Your task to perform on an android device: Open Yahoo.com Image 0: 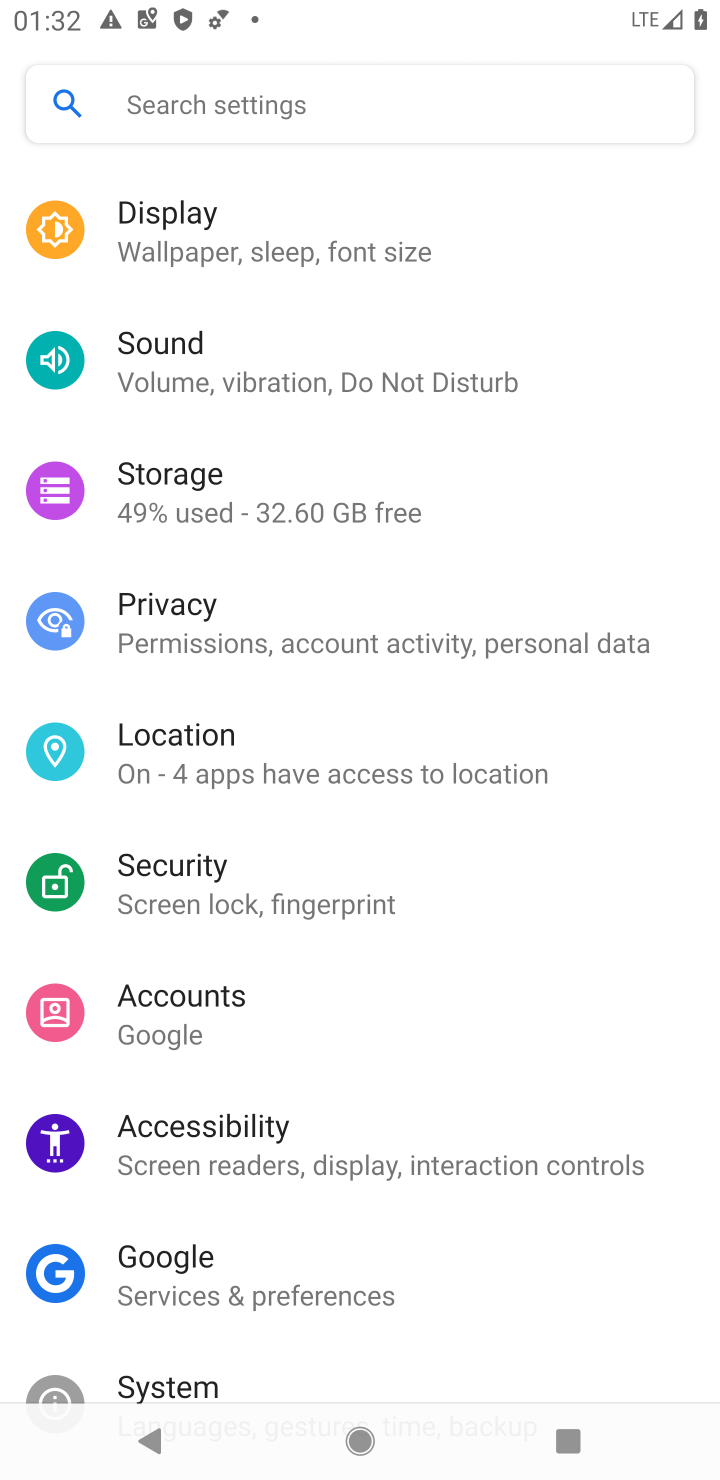
Step 0: click (167, 1439)
Your task to perform on an android device: Open Yahoo.com Image 1: 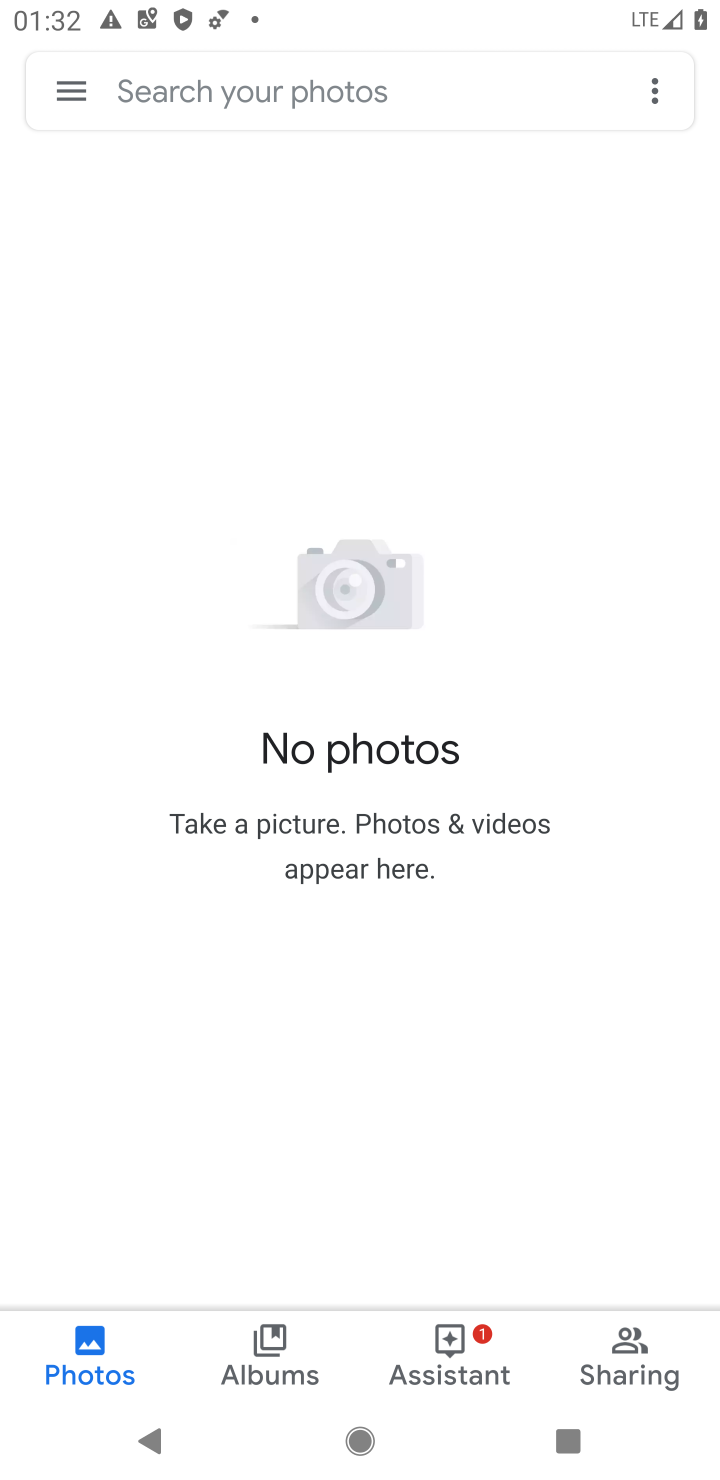
Step 1: click (387, 1445)
Your task to perform on an android device: Open Yahoo.com Image 2: 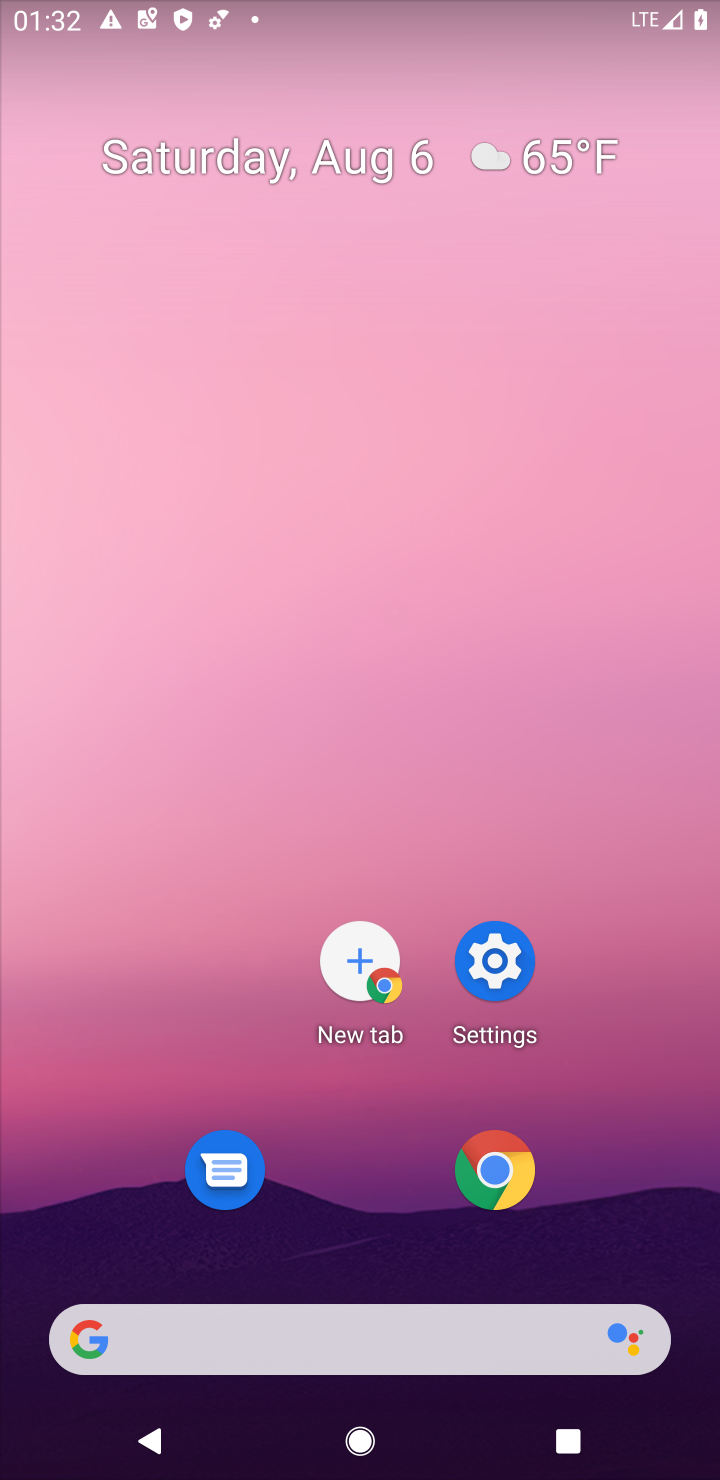
Step 2: click (493, 960)
Your task to perform on an android device: Open Yahoo.com Image 3: 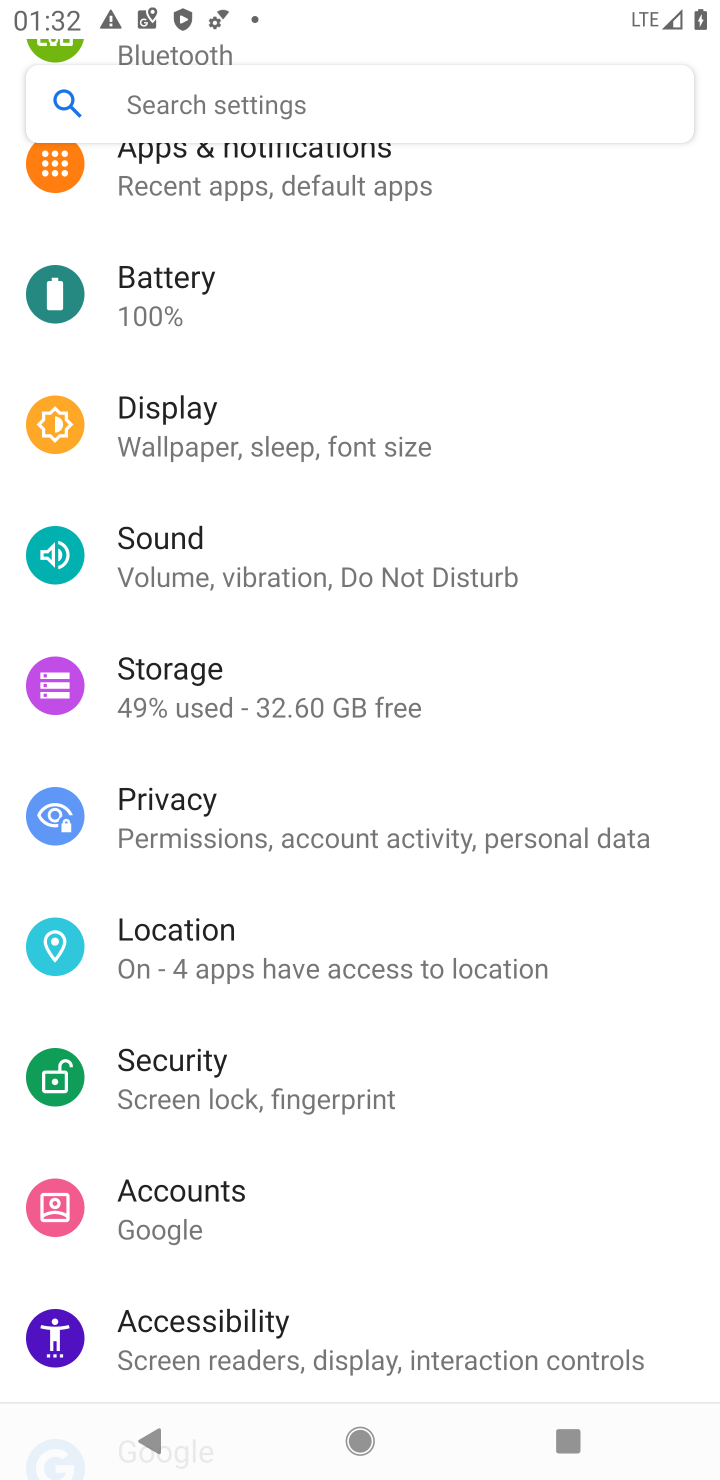
Step 3: click (505, 112)
Your task to perform on an android device: Open Yahoo.com Image 4: 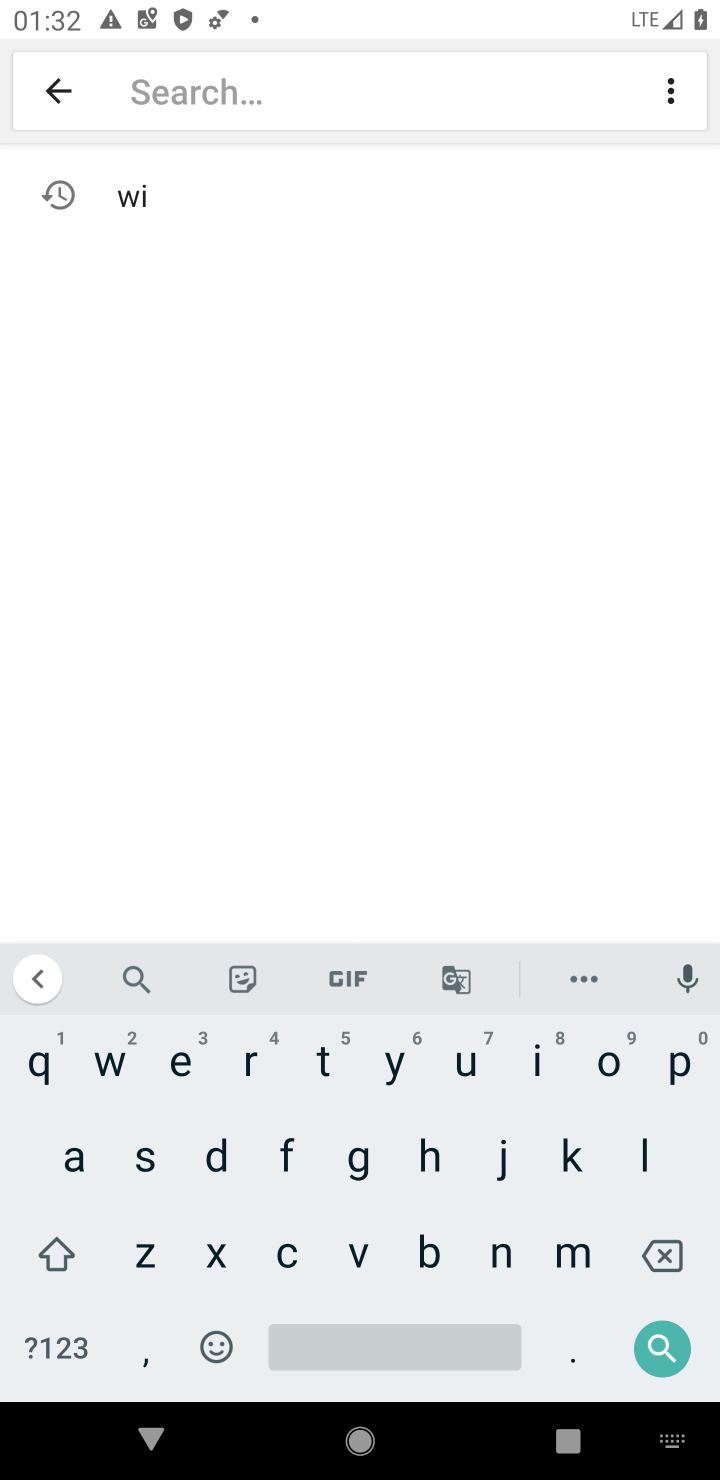
Step 4: click (500, 1265)
Your task to perform on an android device: Open Yahoo.com Image 5: 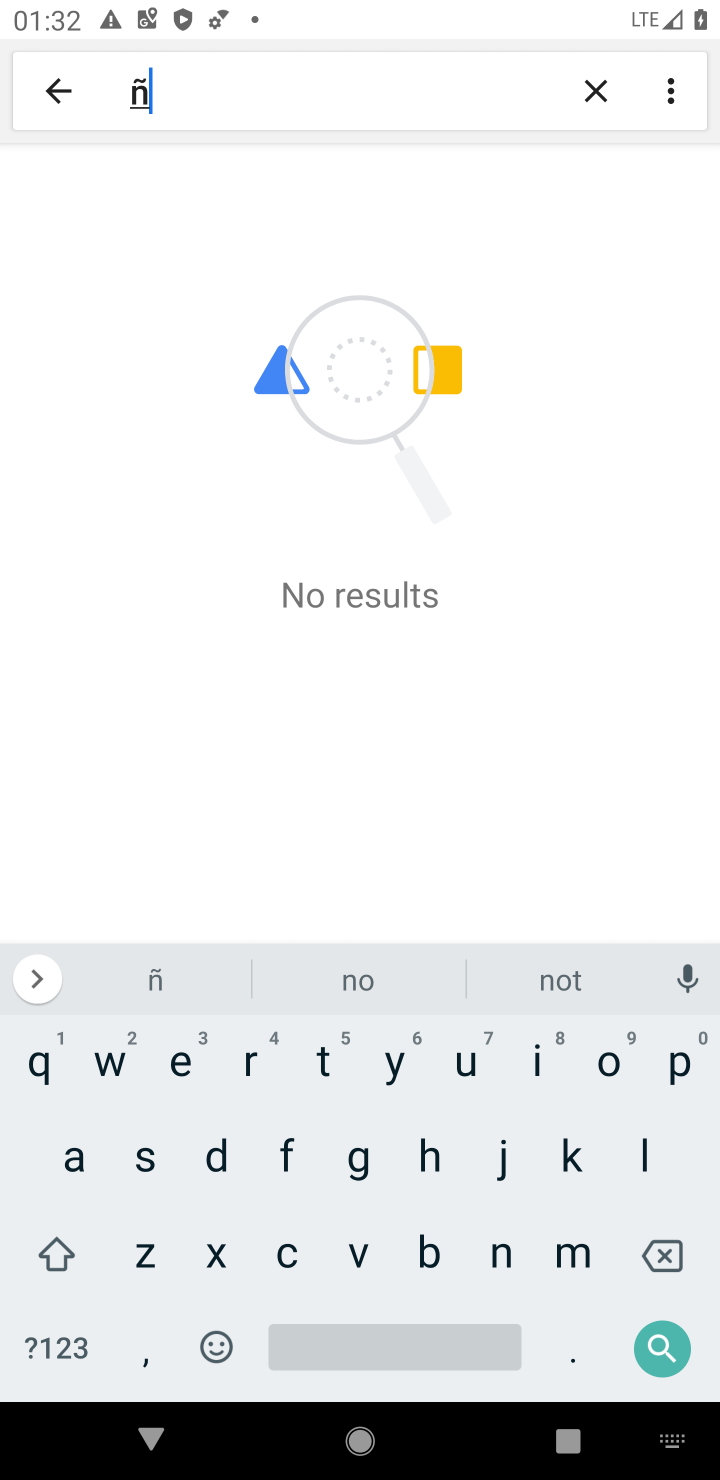
Step 5: click (661, 1252)
Your task to perform on an android device: Open Yahoo.com Image 6: 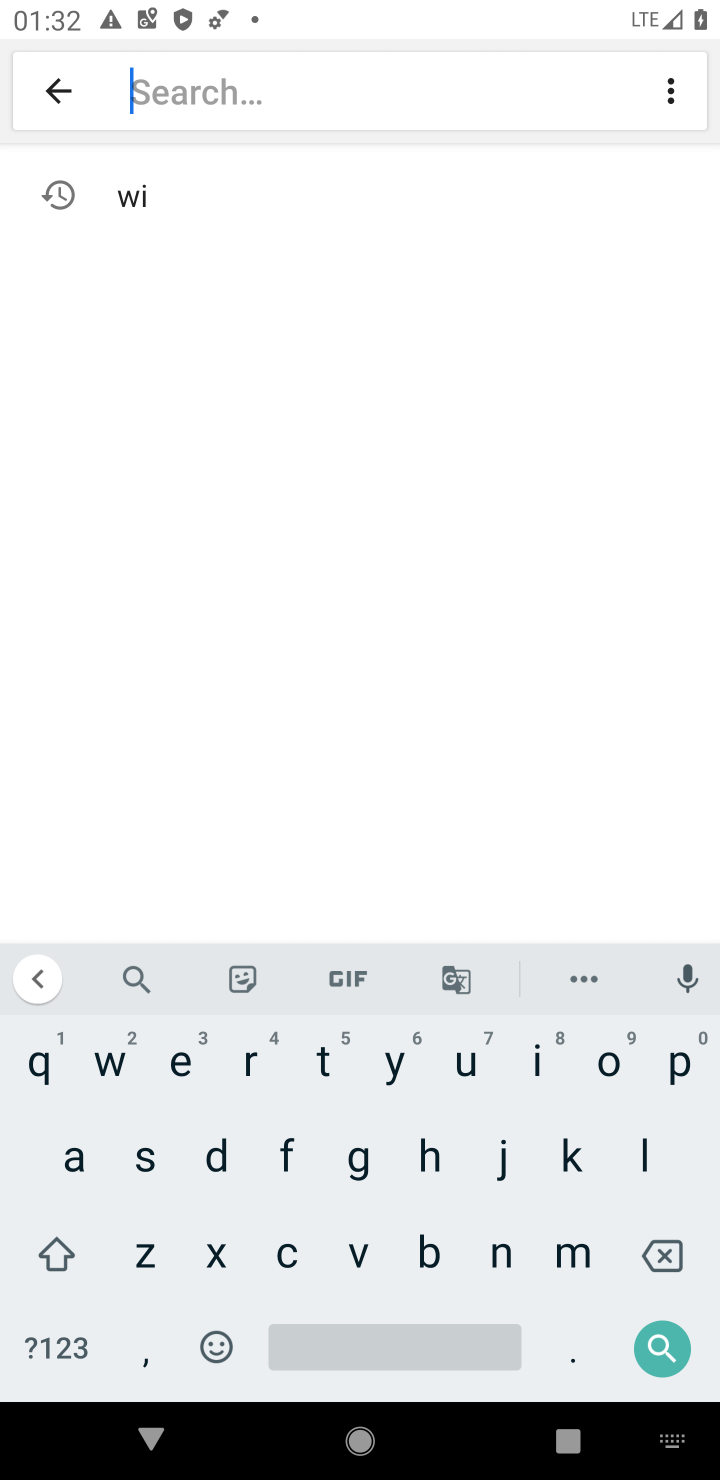
Step 6: click (504, 1252)
Your task to perform on an android device: Open Yahoo.com Image 7: 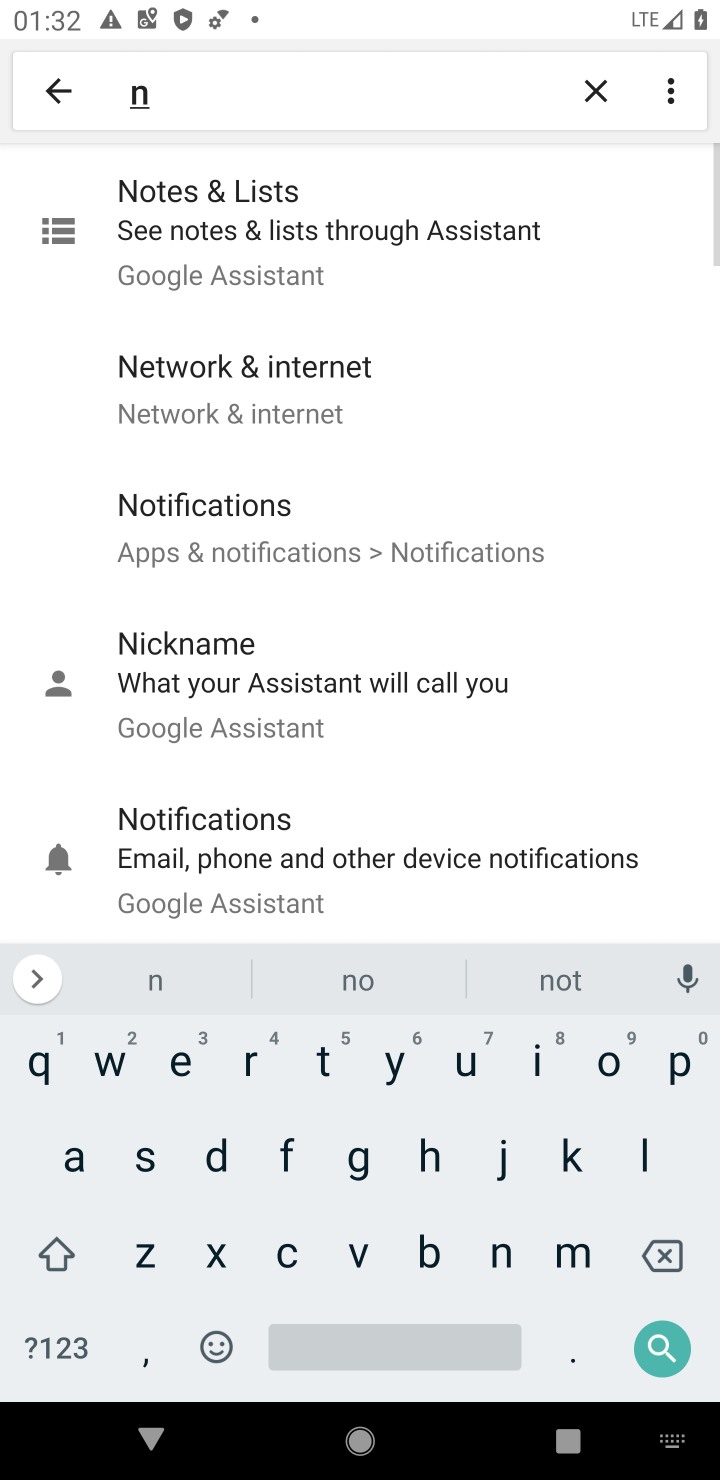
Step 7: click (177, 1060)
Your task to perform on an android device: Open Yahoo.com Image 8: 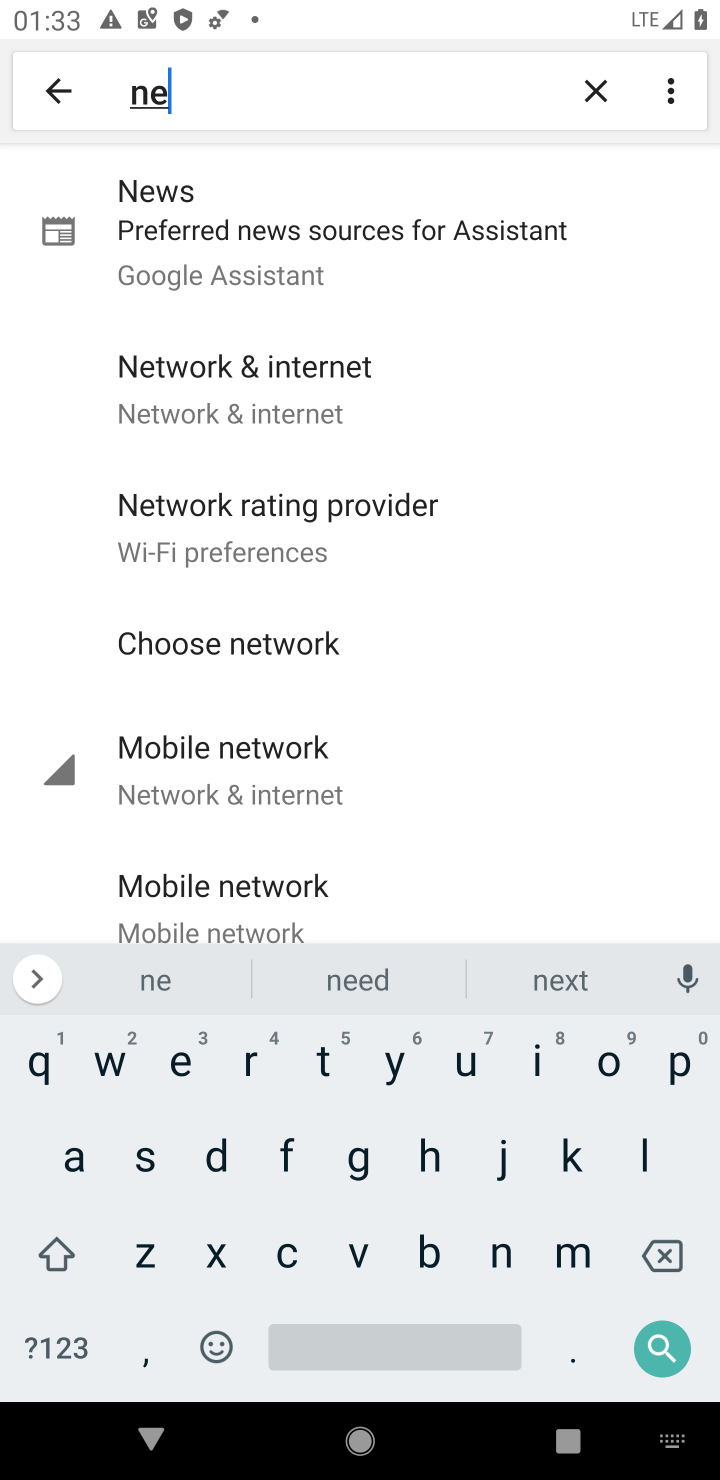
Step 8: click (163, 1429)
Your task to perform on an android device: Open Yahoo.com Image 9: 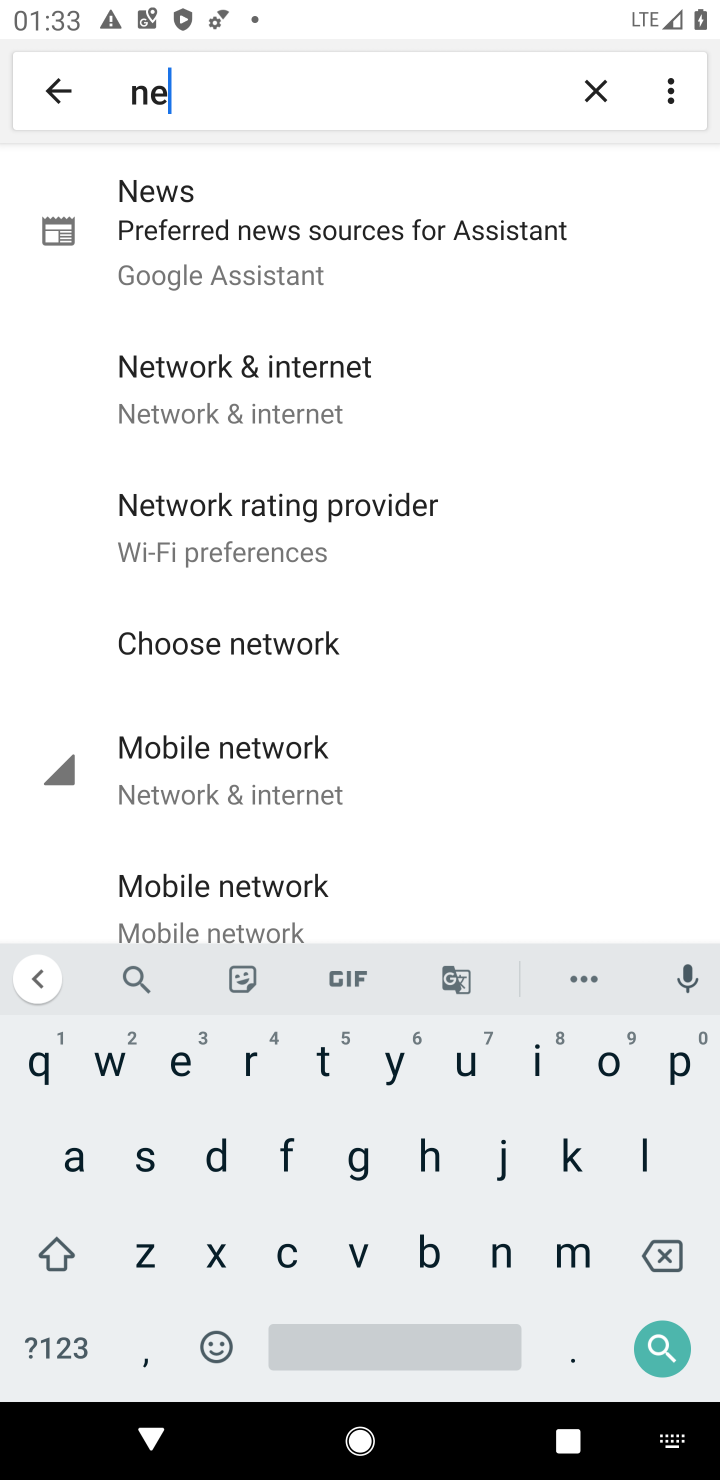
Step 9: click (378, 1438)
Your task to perform on an android device: Open Yahoo.com Image 10: 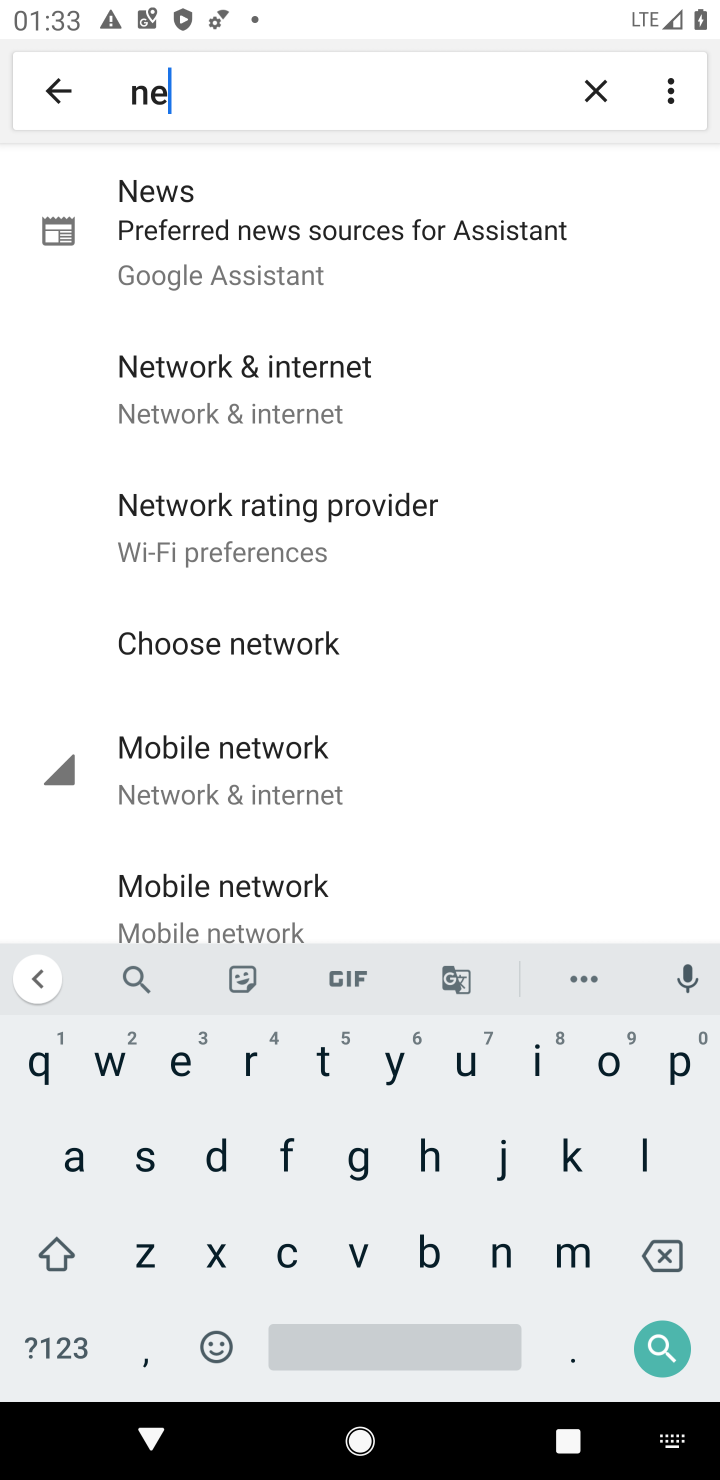
Step 10: click (368, 1445)
Your task to perform on an android device: Open Yahoo.com Image 11: 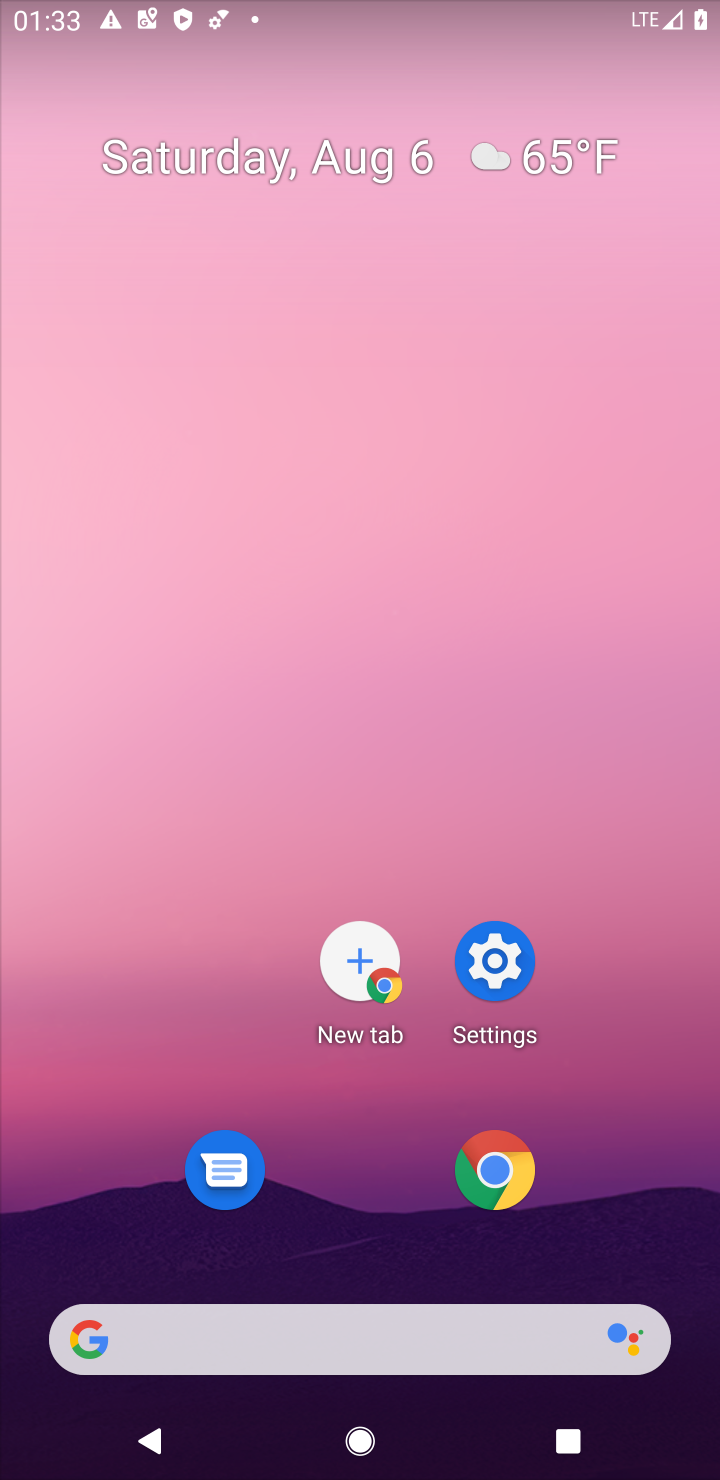
Step 11: click (506, 1154)
Your task to perform on an android device: Open Yahoo.com Image 12: 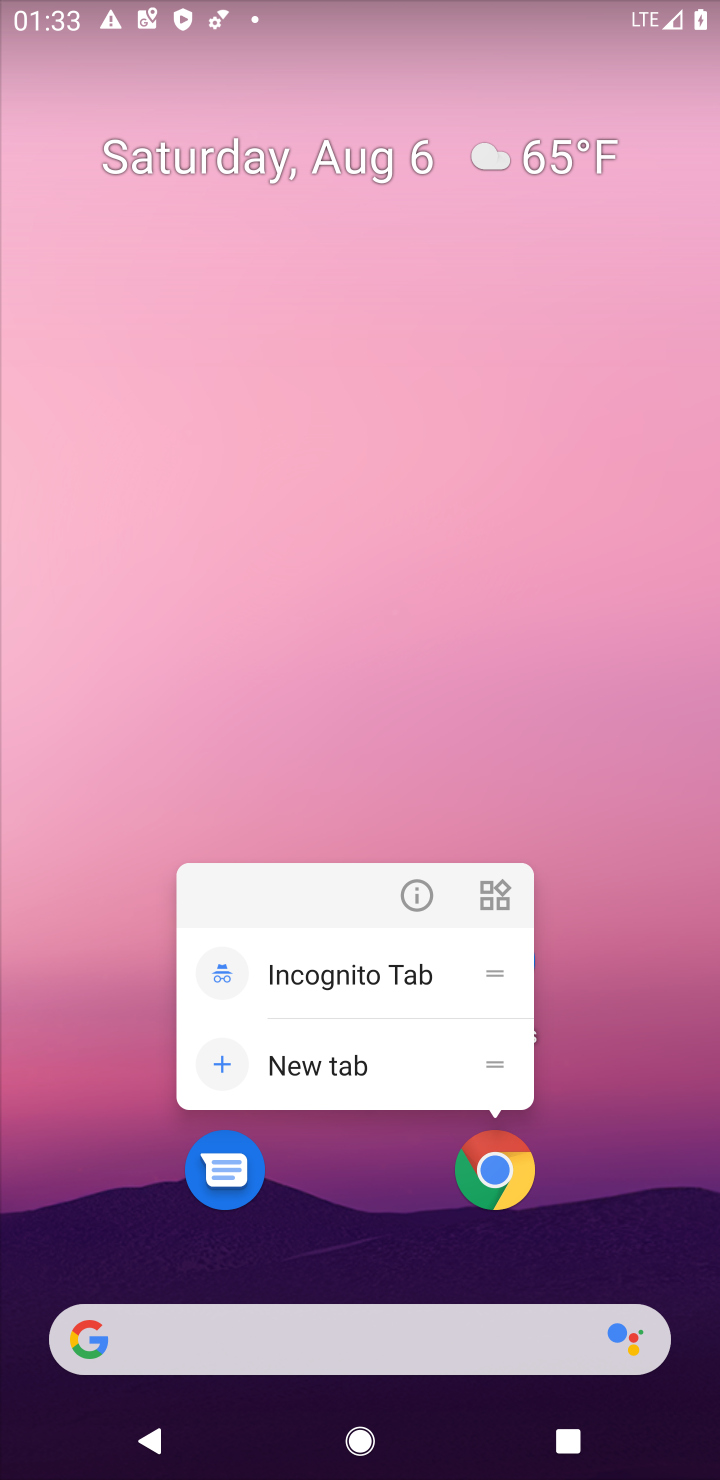
Step 12: click (453, 451)
Your task to perform on an android device: Open Yahoo.com Image 13: 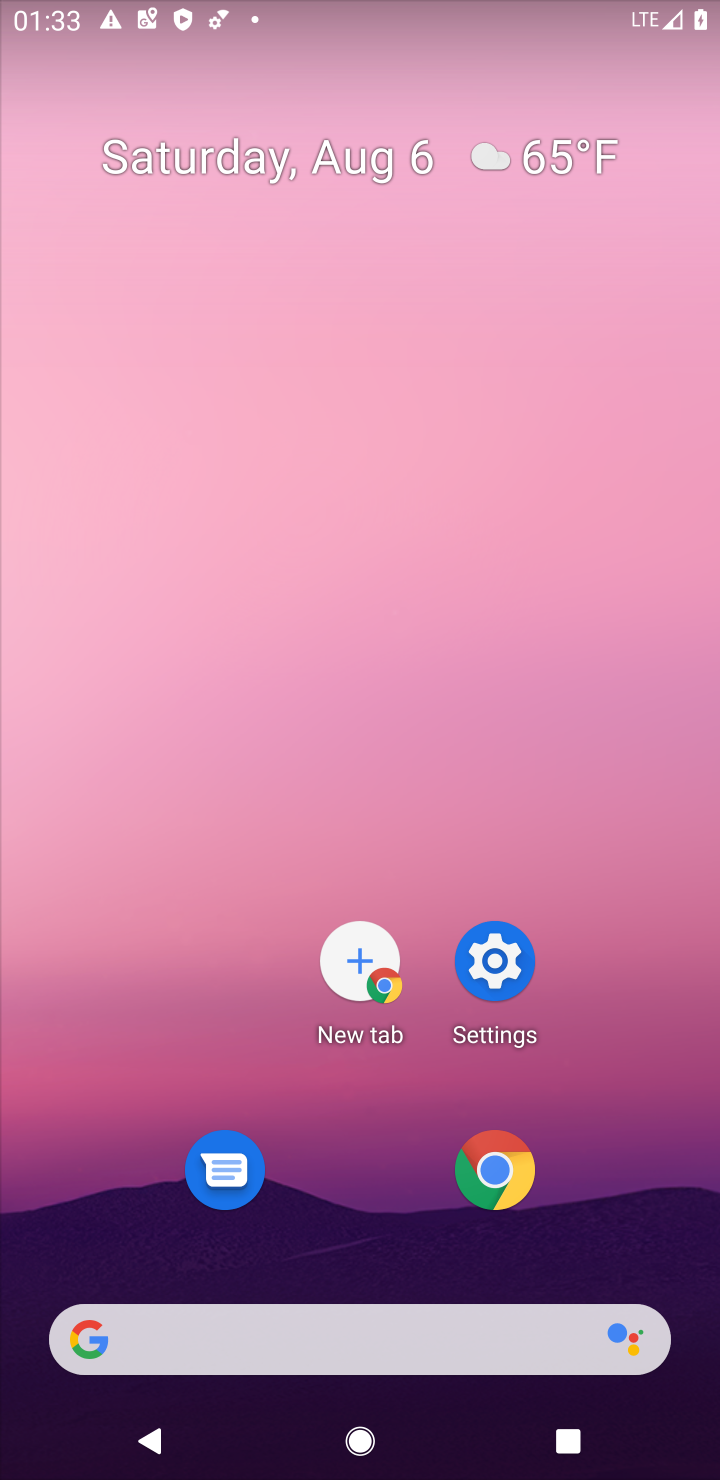
Step 13: click (497, 1173)
Your task to perform on an android device: Open Yahoo.com Image 14: 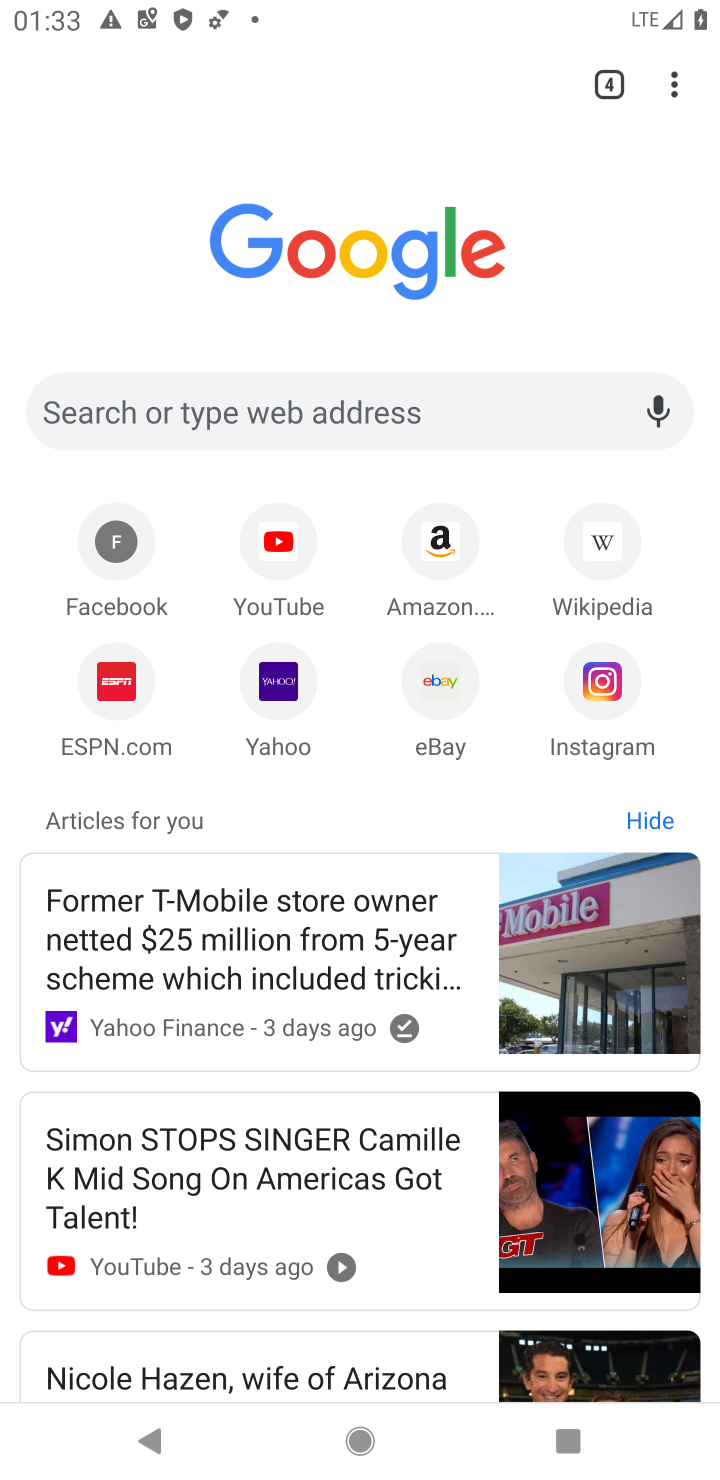
Step 14: click (519, 411)
Your task to perform on an android device: Open Yahoo.com Image 15: 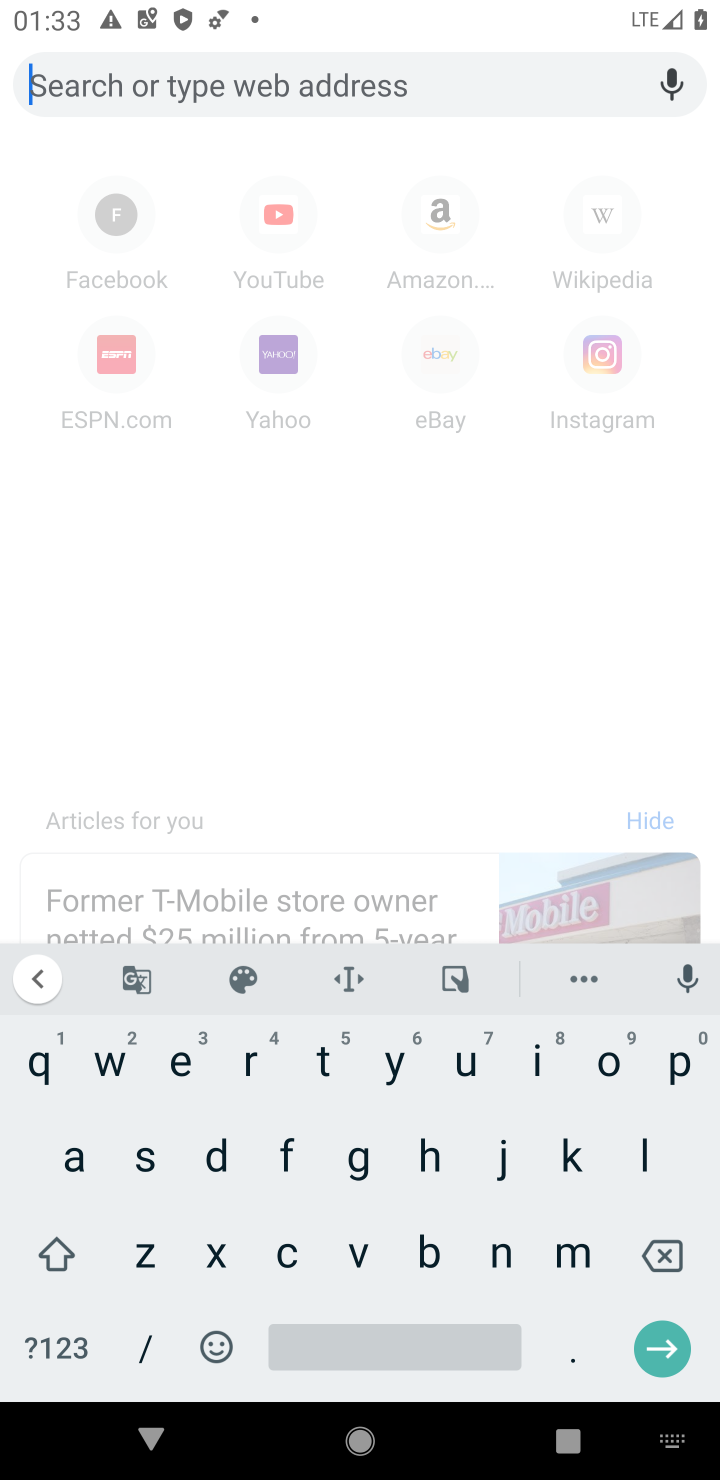
Step 15: click (389, 1063)
Your task to perform on an android device: Open Yahoo.com Image 16: 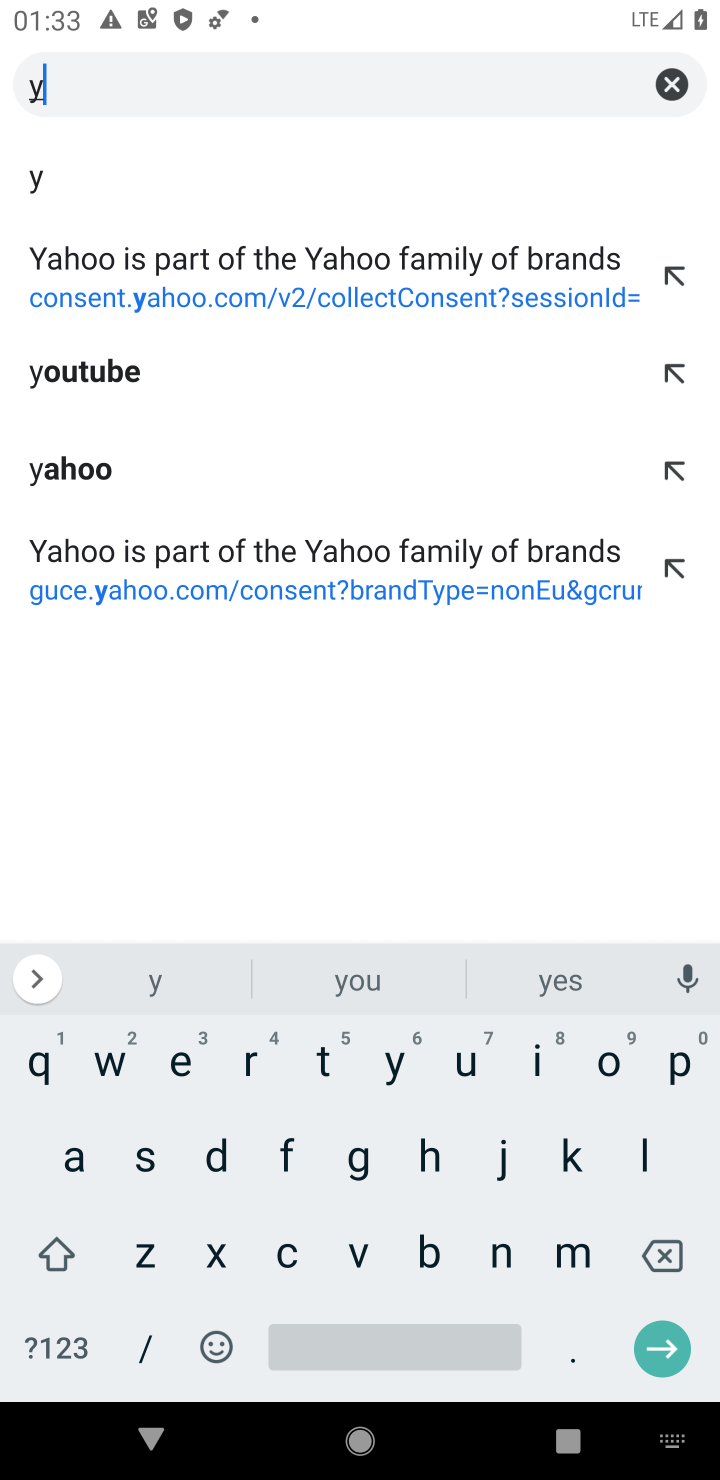
Step 16: click (71, 1160)
Your task to perform on an android device: Open Yahoo.com Image 17: 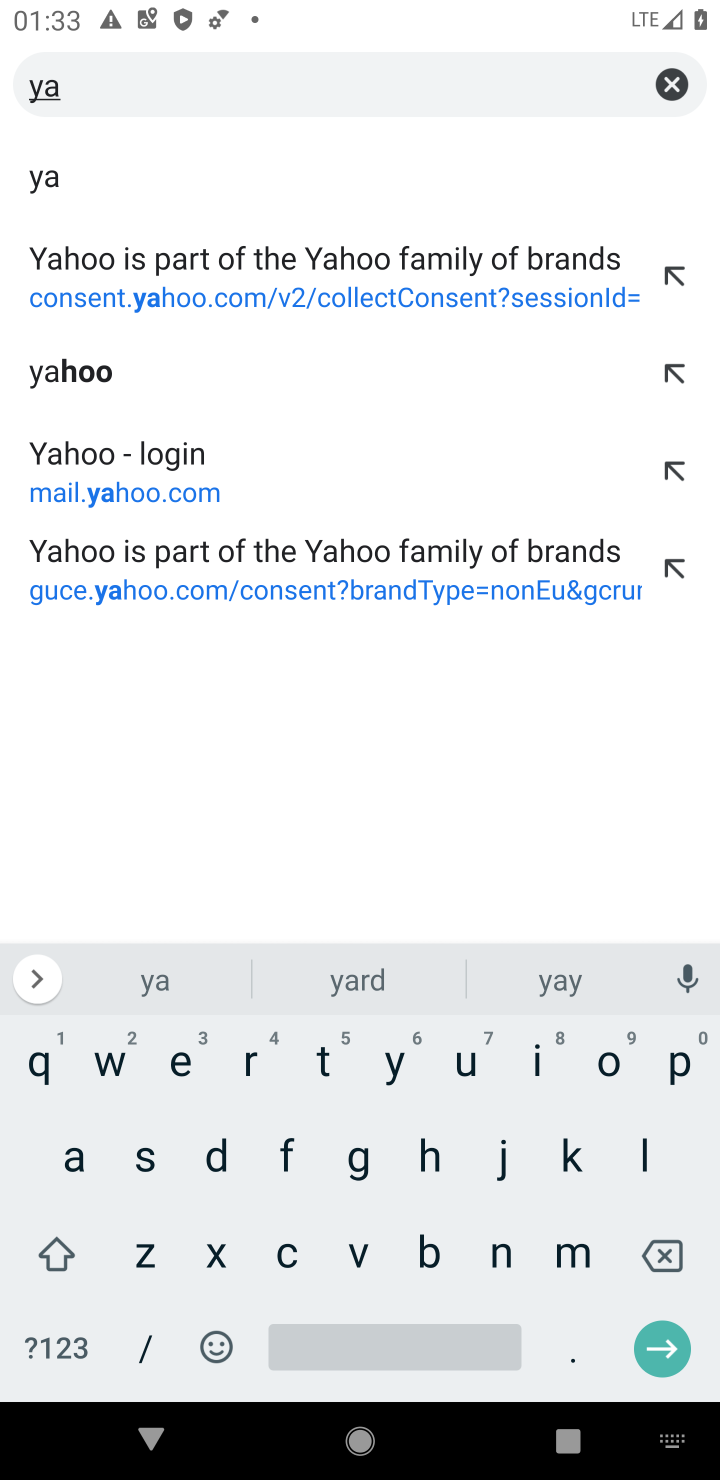
Step 17: click (433, 1167)
Your task to perform on an android device: Open Yahoo.com Image 18: 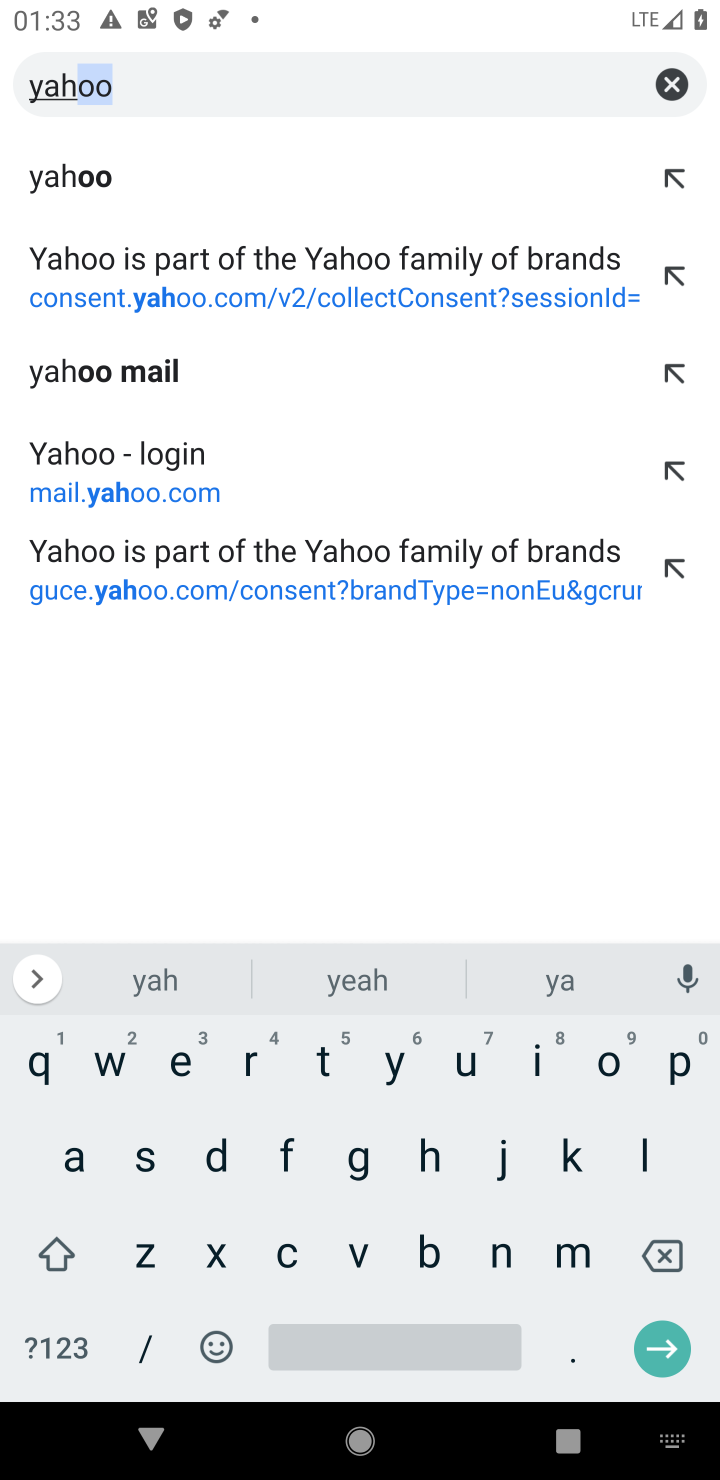
Step 18: click (613, 1062)
Your task to perform on an android device: Open Yahoo.com Image 19: 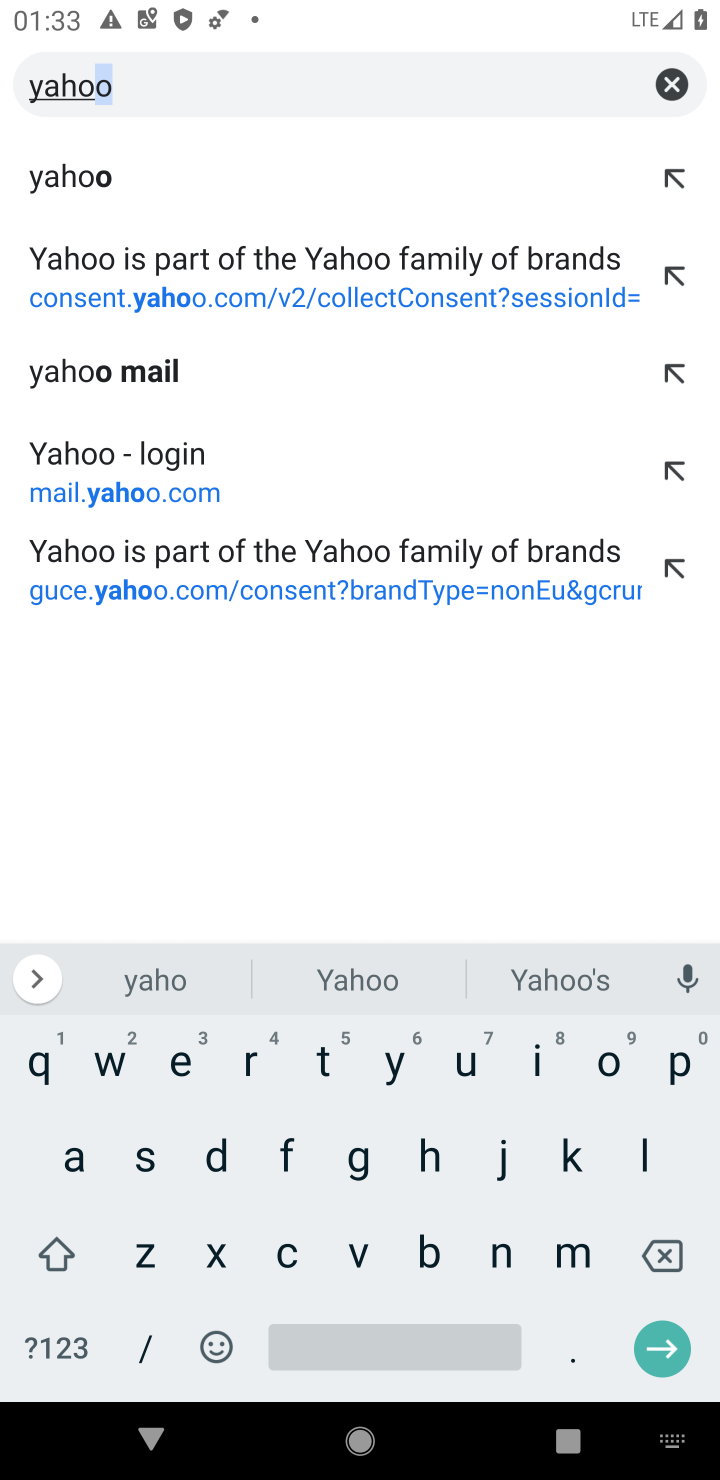
Step 19: click (613, 1062)
Your task to perform on an android device: Open Yahoo.com Image 20: 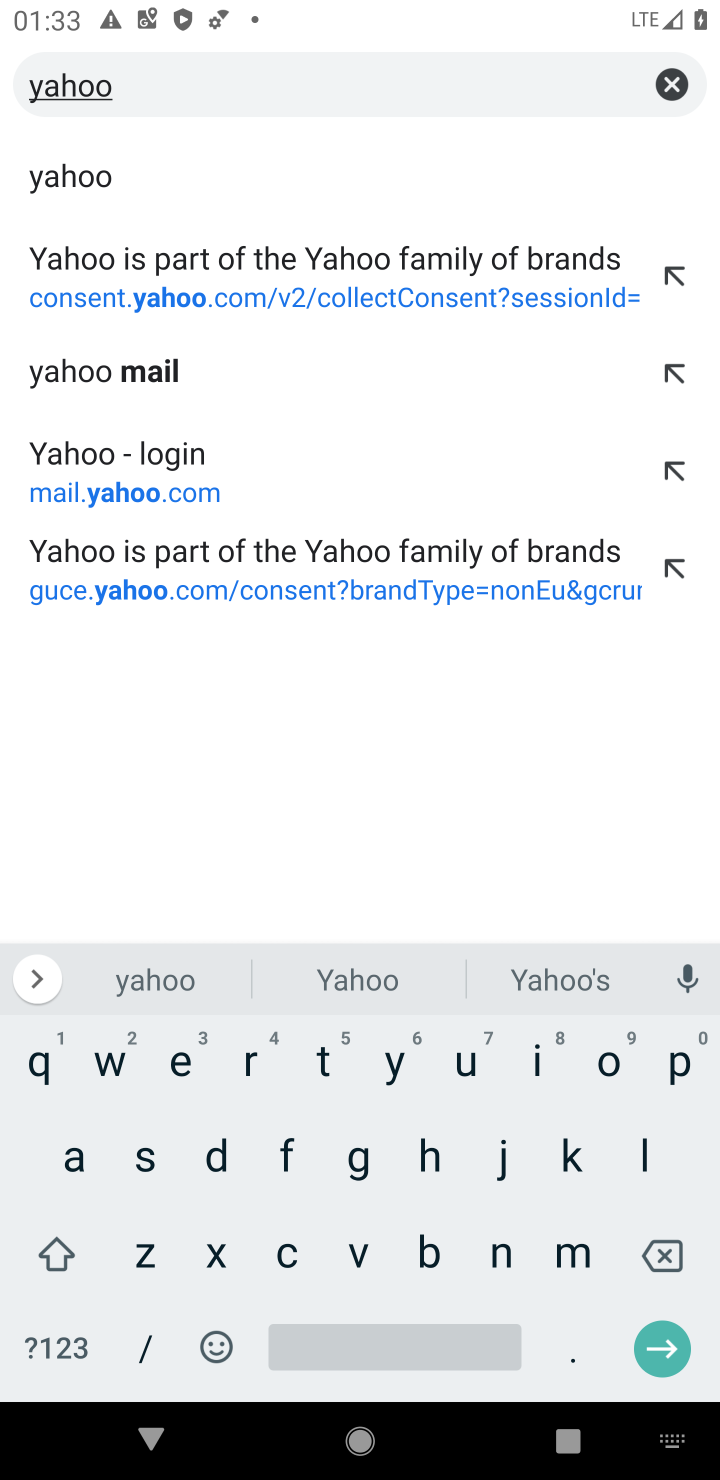
Step 20: click (577, 1366)
Your task to perform on an android device: Open Yahoo.com Image 21: 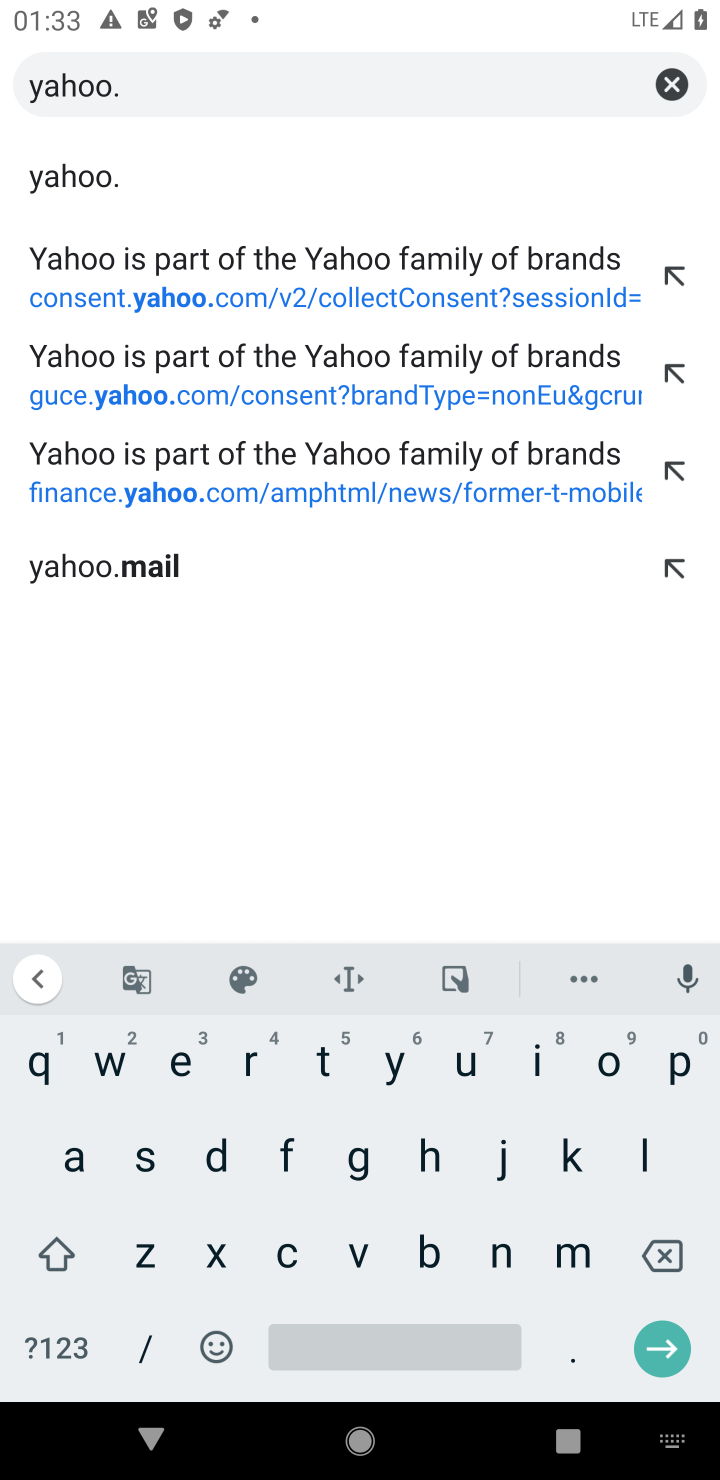
Step 21: click (282, 1253)
Your task to perform on an android device: Open Yahoo.com Image 22: 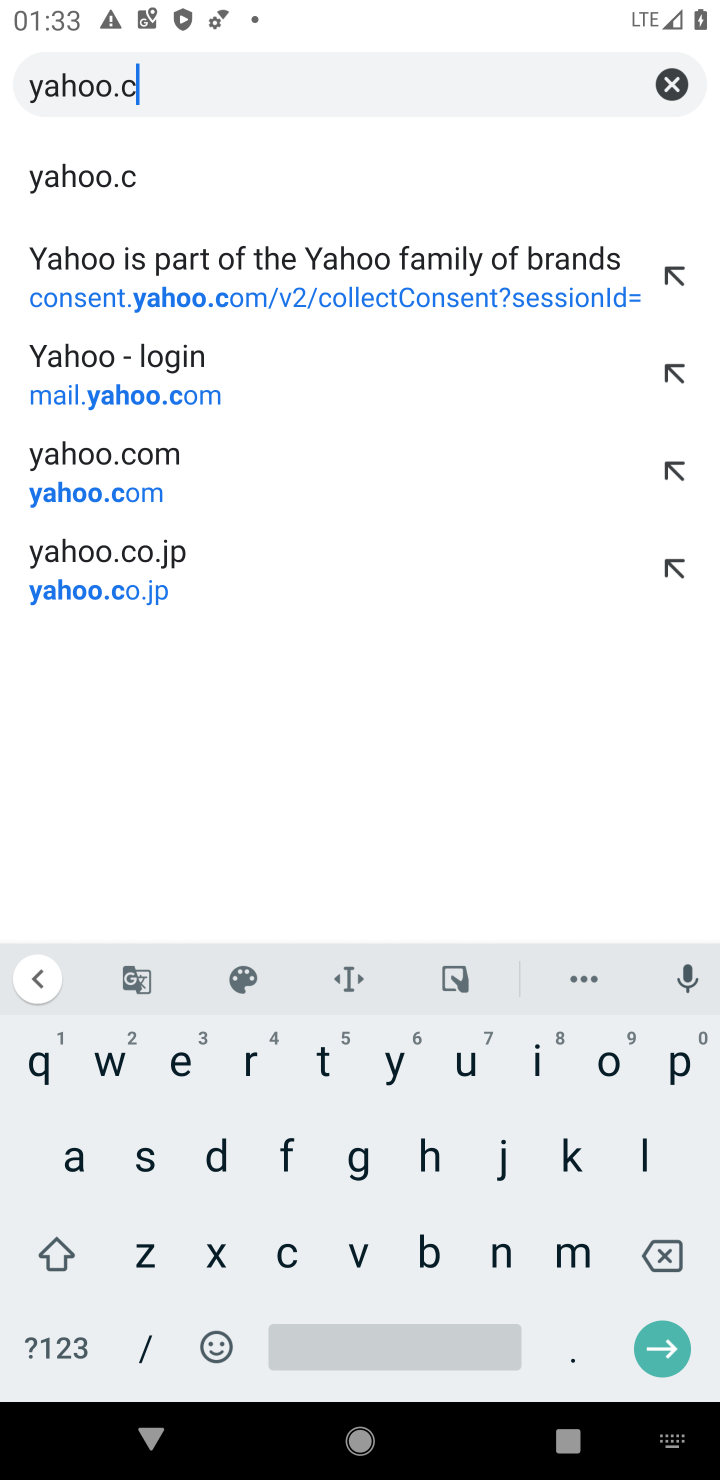
Step 22: click (615, 1059)
Your task to perform on an android device: Open Yahoo.com Image 23: 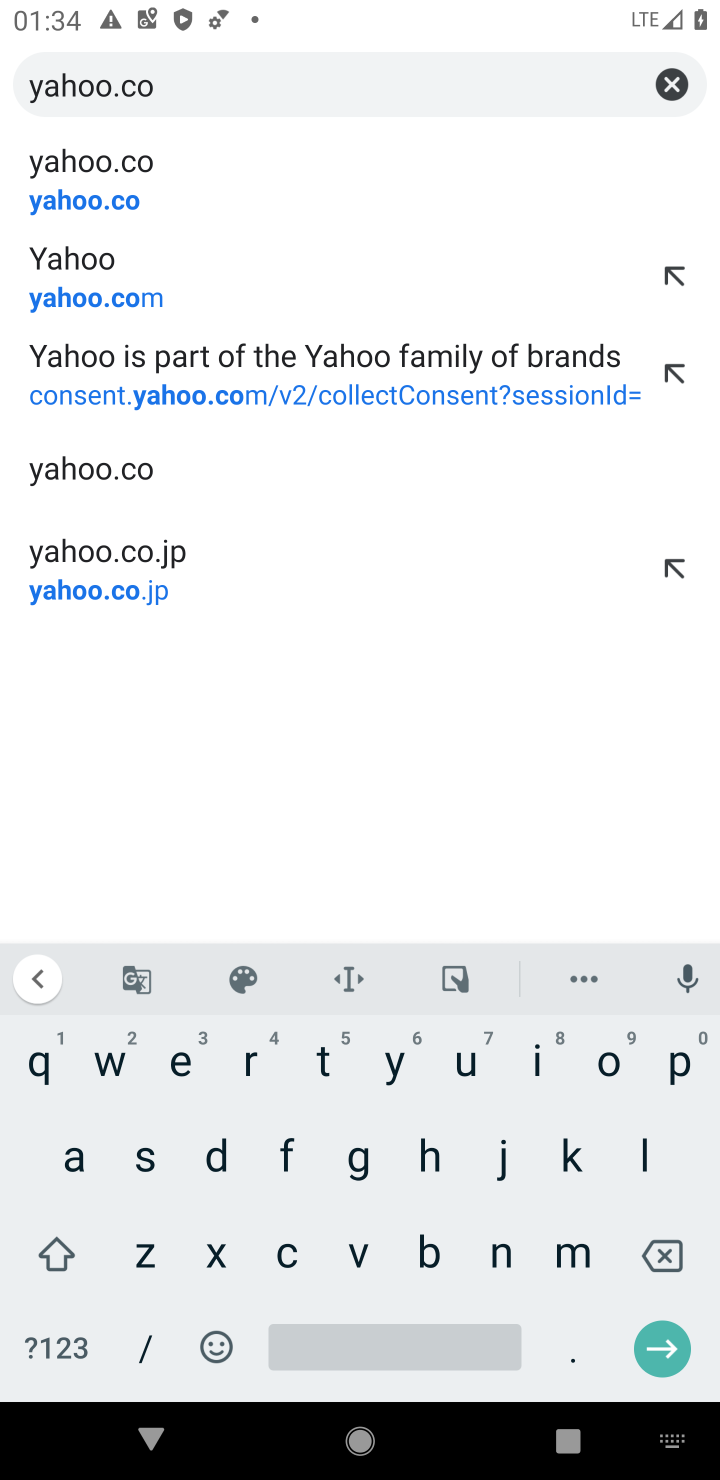
Step 23: click (221, 252)
Your task to perform on an android device: Open Yahoo.com Image 24: 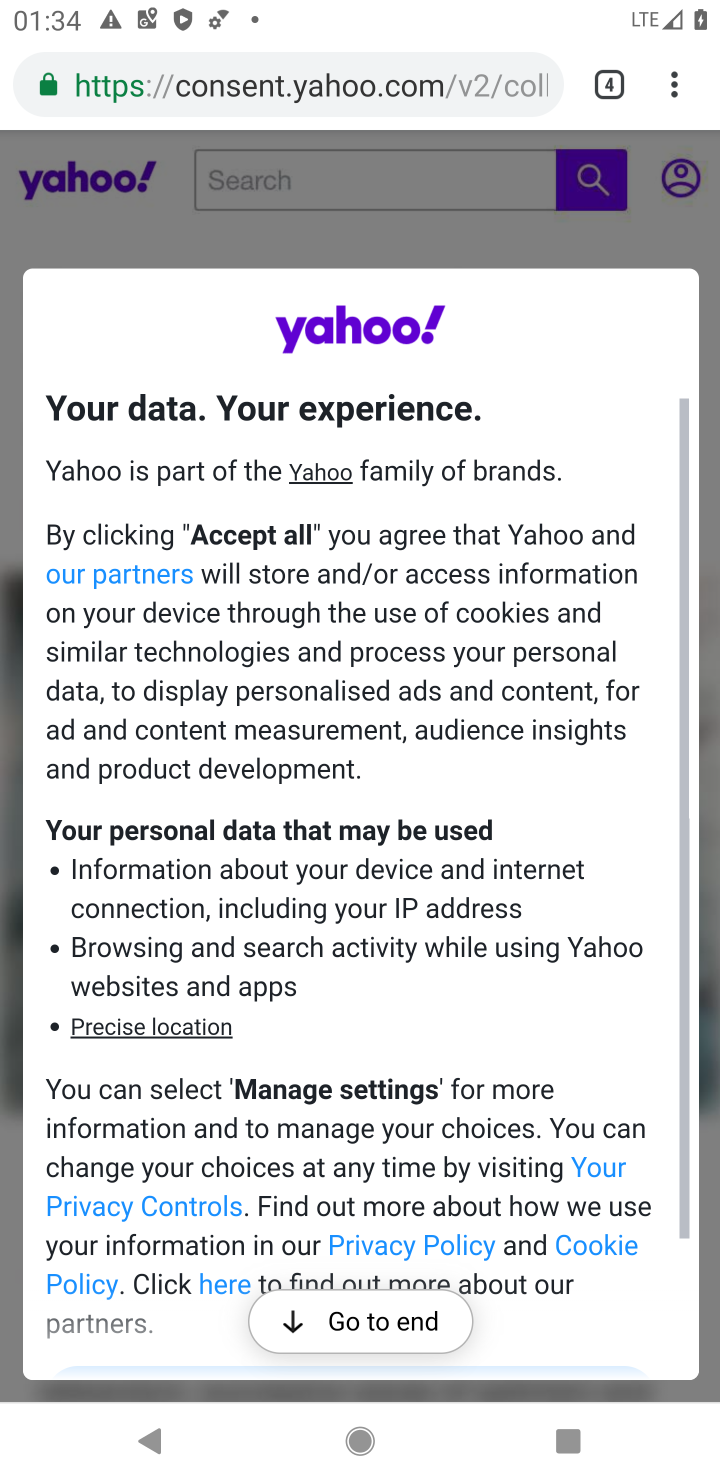
Step 24: task complete